Your task to perform on an android device: open app "McDonald's" (install if not already installed) and go to login screen Image 0: 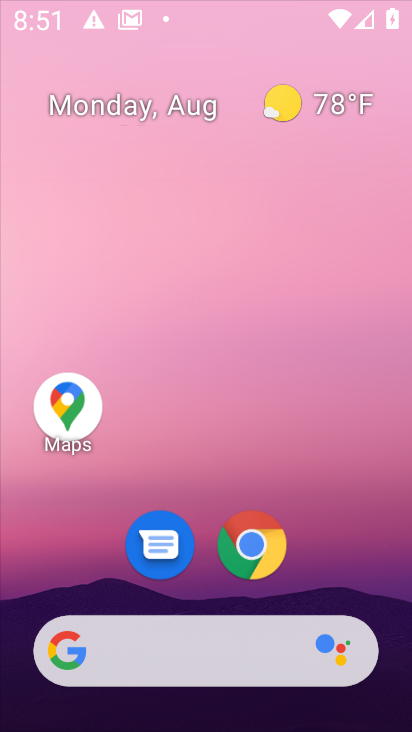
Step 0: press home button
Your task to perform on an android device: open app "McDonald's" (install if not already installed) and go to login screen Image 1: 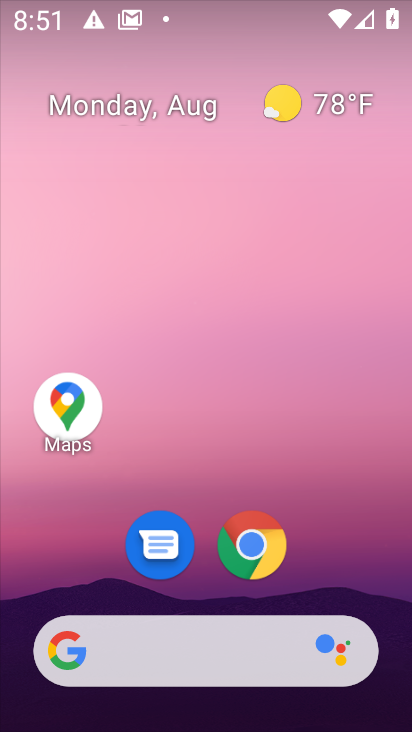
Step 1: drag from (363, 591) to (377, 117)
Your task to perform on an android device: open app "McDonald's" (install if not already installed) and go to login screen Image 2: 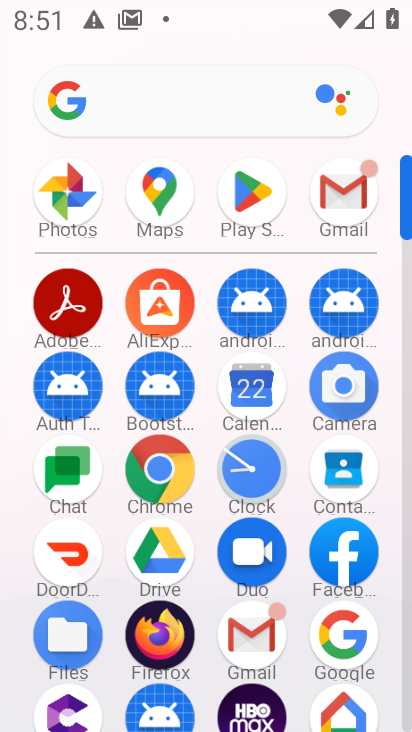
Step 2: click (253, 198)
Your task to perform on an android device: open app "McDonald's" (install if not already installed) and go to login screen Image 3: 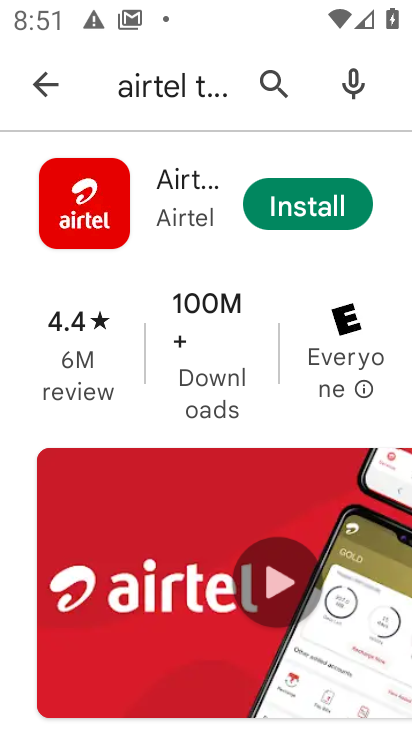
Step 3: press back button
Your task to perform on an android device: open app "McDonald's" (install if not already installed) and go to login screen Image 4: 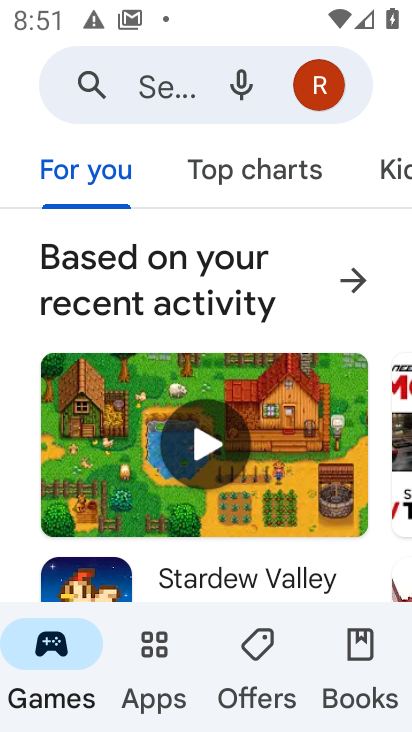
Step 4: click (128, 88)
Your task to perform on an android device: open app "McDonald's" (install if not already installed) and go to login screen Image 5: 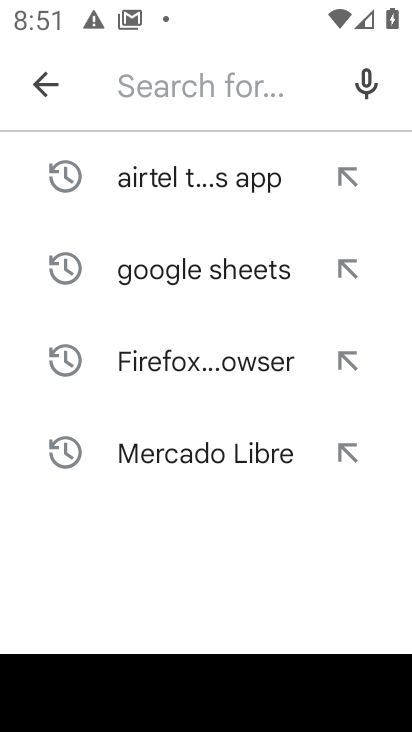
Step 5: type "McDonald's"
Your task to perform on an android device: open app "McDonald's" (install if not already installed) and go to login screen Image 6: 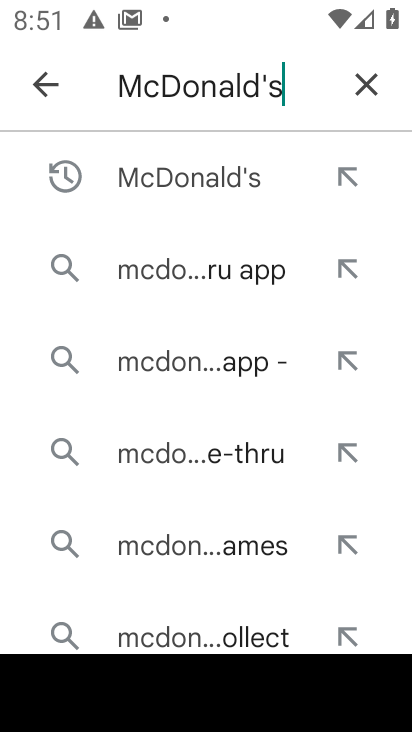
Step 6: press enter
Your task to perform on an android device: open app "McDonald's" (install if not already installed) and go to login screen Image 7: 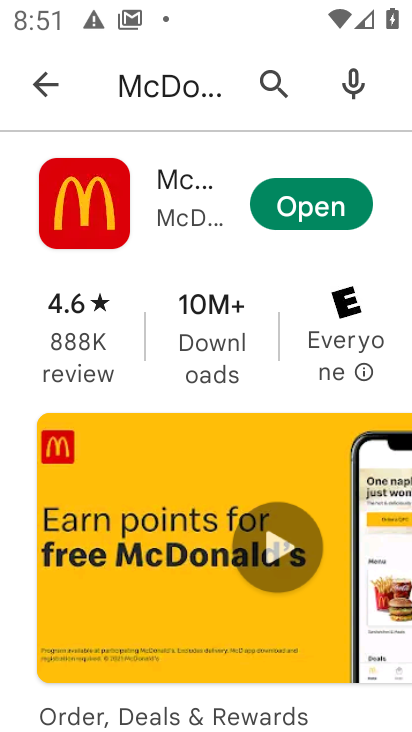
Step 7: click (314, 201)
Your task to perform on an android device: open app "McDonald's" (install if not already installed) and go to login screen Image 8: 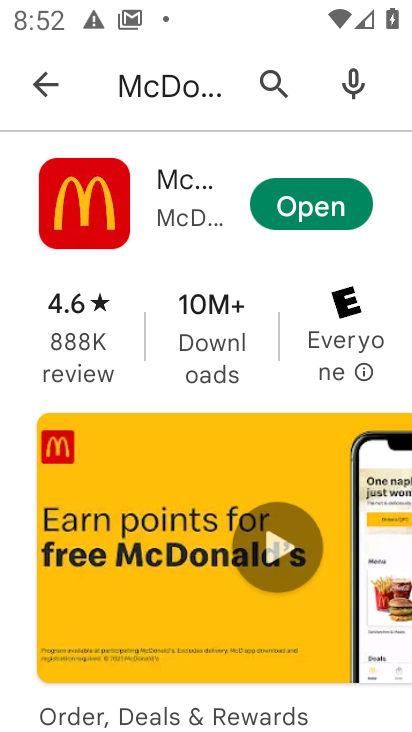
Step 8: click (306, 207)
Your task to perform on an android device: open app "McDonald's" (install if not already installed) and go to login screen Image 9: 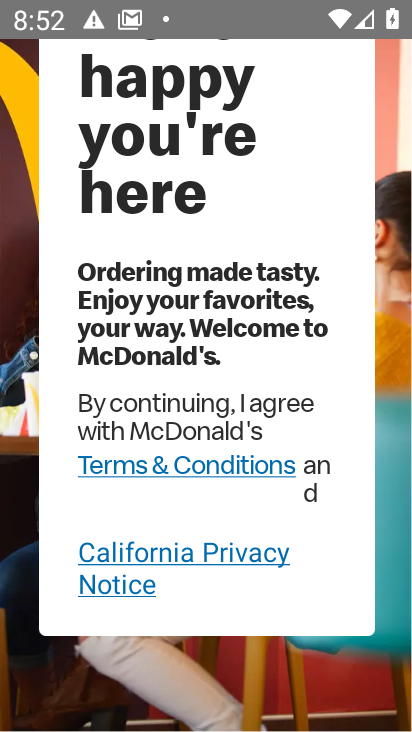
Step 9: drag from (336, 560) to (336, 252)
Your task to perform on an android device: open app "McDonald's" (install if not already installed) and go to login screen Image 10: 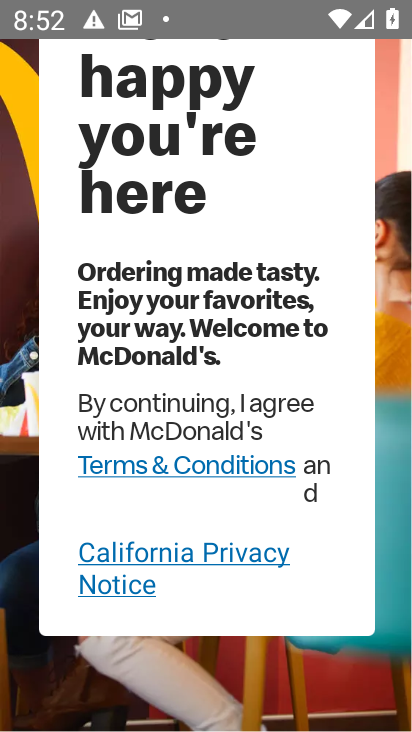
Step 10: click (253, 463)
Your task to perform on an android device: open app "McDonald's" (install if not already installed) and go to login screen Image 11: 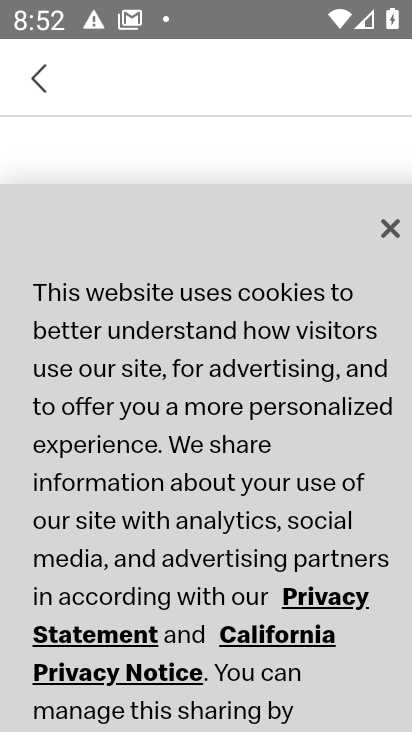
Step 11: drag from (230, 533) to (232, 227)
Your task to perform on an android device: open app "McDonald's" (install if not already installed) and go to login screen Image 12: 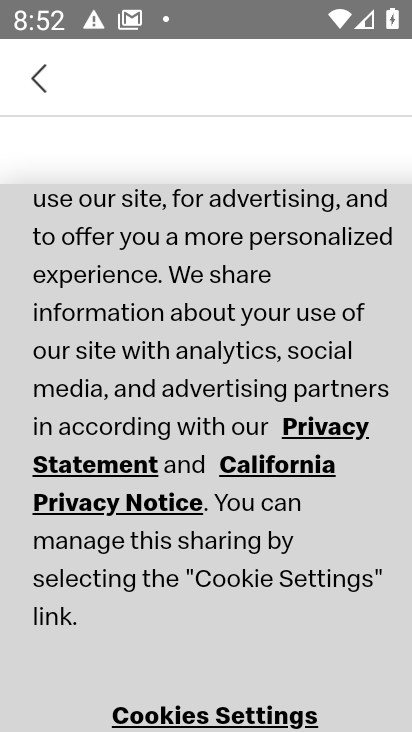
Step 12: drag from (211, 568) to (239, 256)
Your task to perform on an android device: open app "McDonald's" (install if not already installed) and go to login screen Image 13: 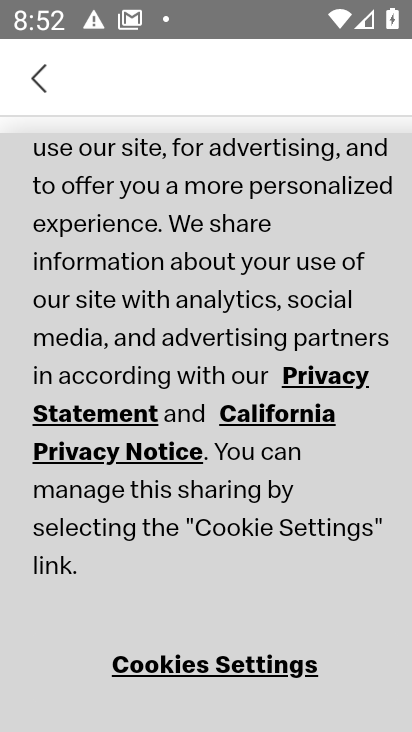
Step 13: drag from (231, 208) to (224, 570)
Your task to perform on an android device: open app "McDonald's" (install if not already installed) and go to login screen Image 14: 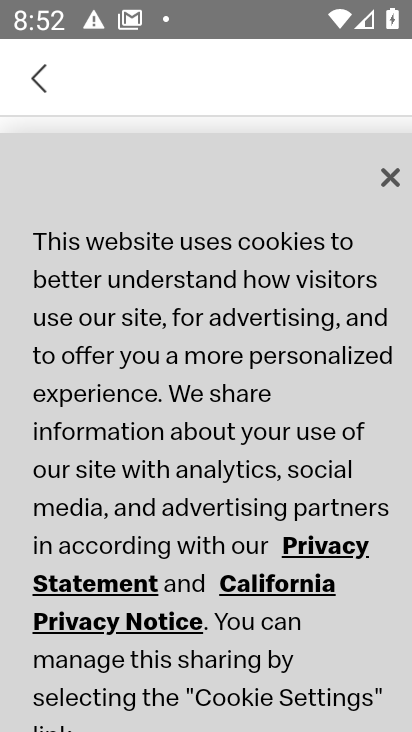
Step 14: click (386, 174)
Your task to perform on an android device: open app "McDonald's" (install if not already installed) and go to login screen Image 15: 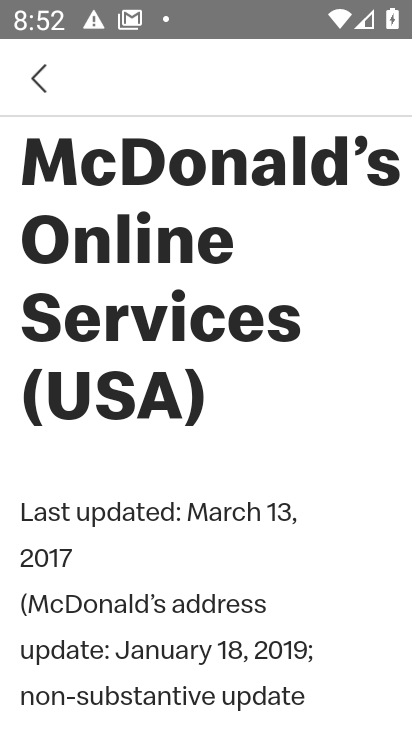
Step 15: task complete